Your task to perform on an android device: toggle airplane mode Image 0: 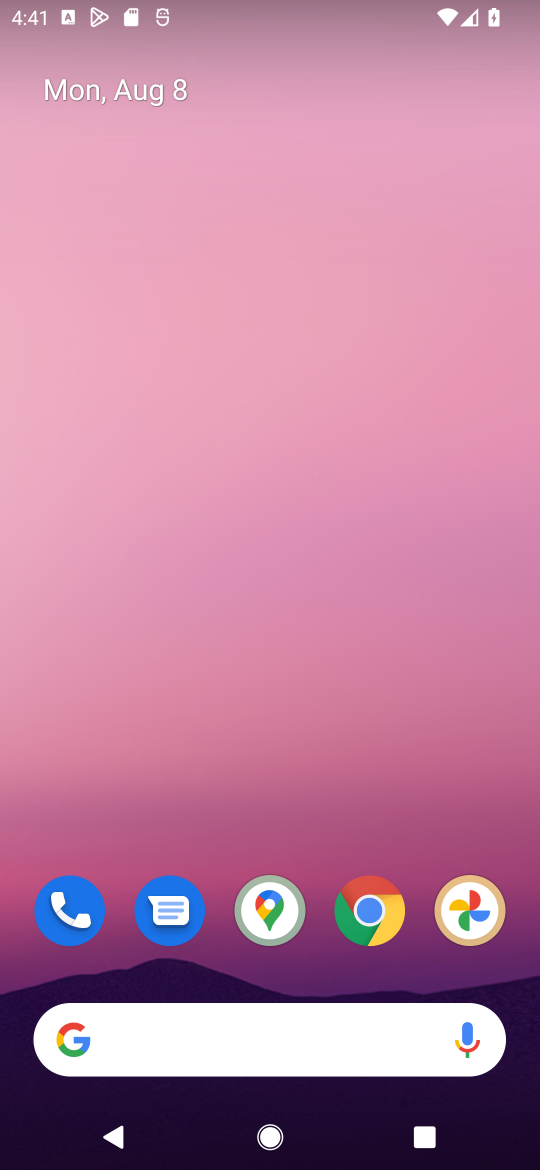
Step 0: drag from (330, 15) to (256, 899)
Your task to perform on an android device: toggle airplane mode Image 1: 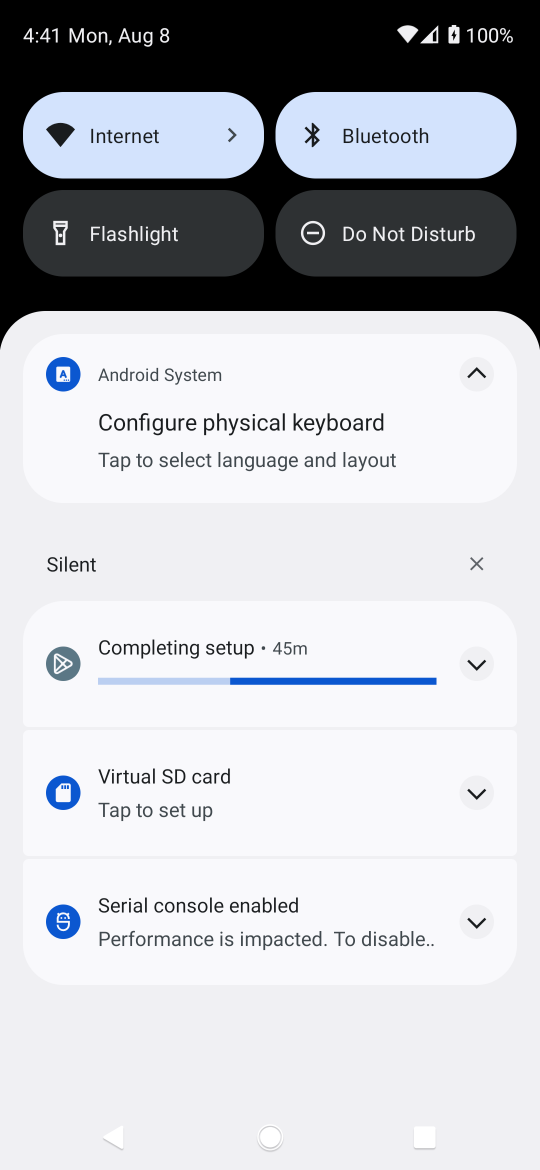
Step 1: drag from (263, 292) to (177, 1136)
Your task to perform on an android device: toggle airplane mode Image 2: 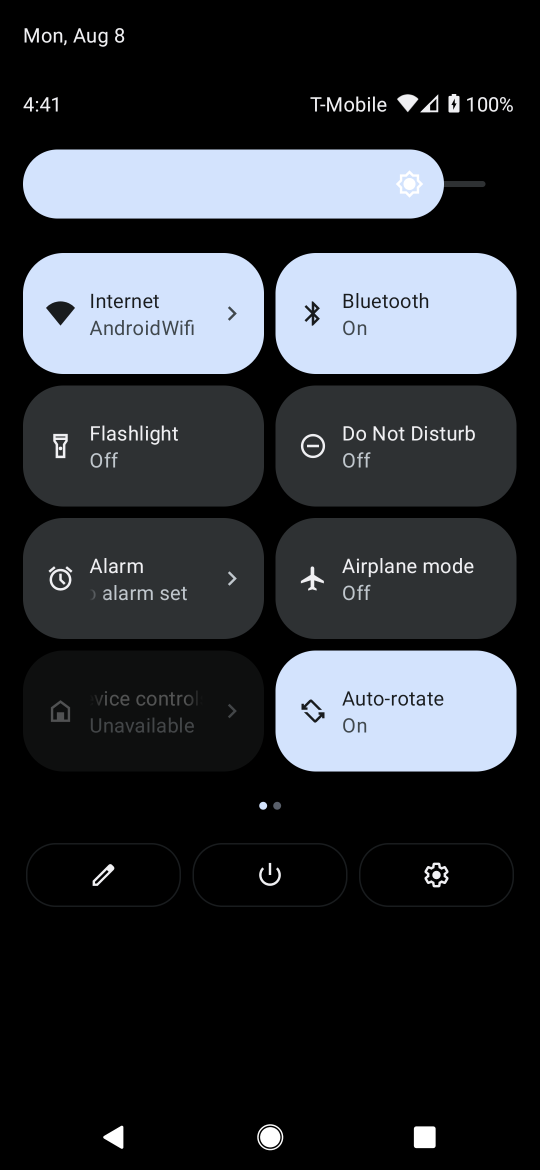
Step 2: click (336, 616)
Your task to perform on an android device: toggle airplane mode Image 3: 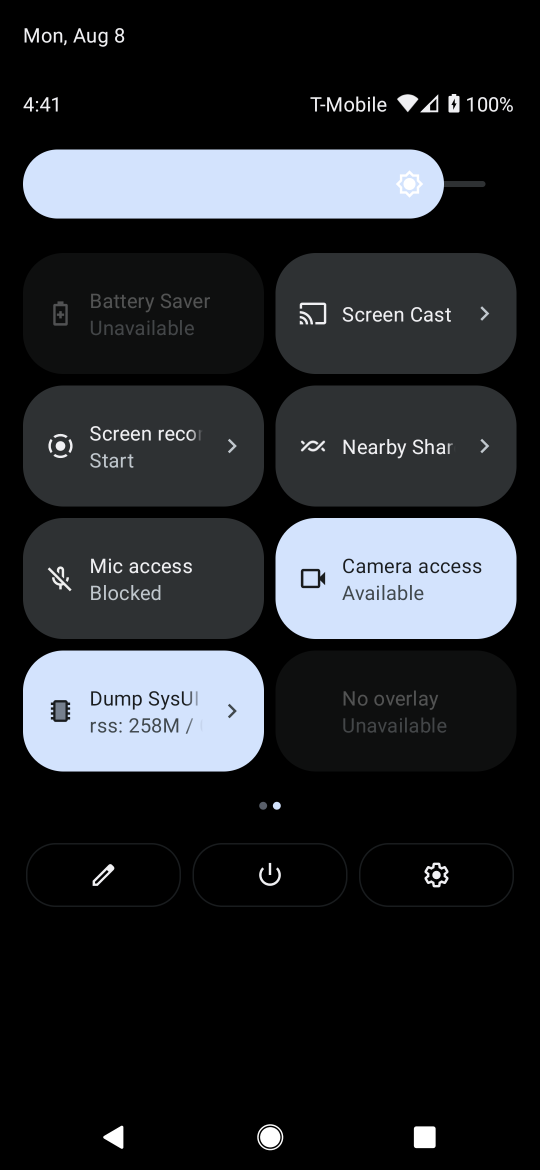
Step 3: click (274, 806)
Your task to perform on an android device: toggle airplane mode Image 4: 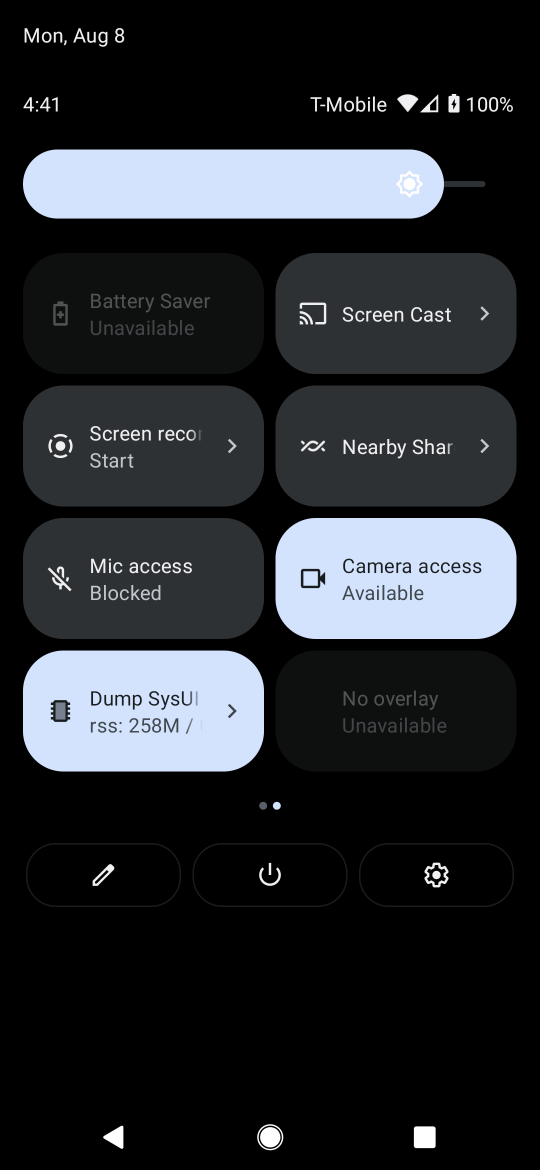
Step 4: click (264, 807)
Your task to perform on an android device: toggle airplane mode Image 5: 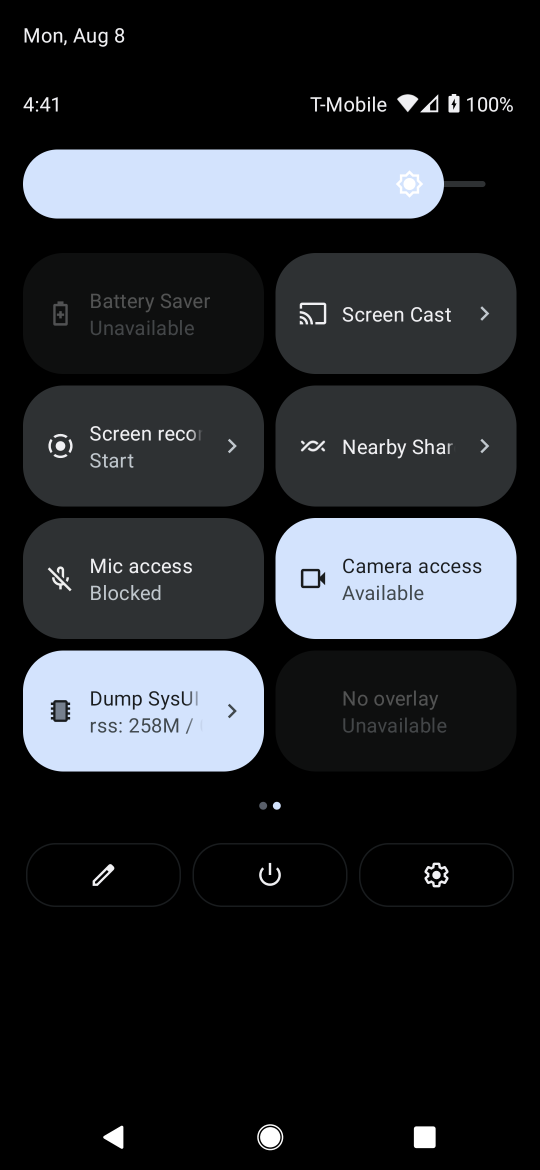
Step 5: drag from (41, 412) to (536, 327)
Your task to perform on an android device: toggle airplane mode Image 6: 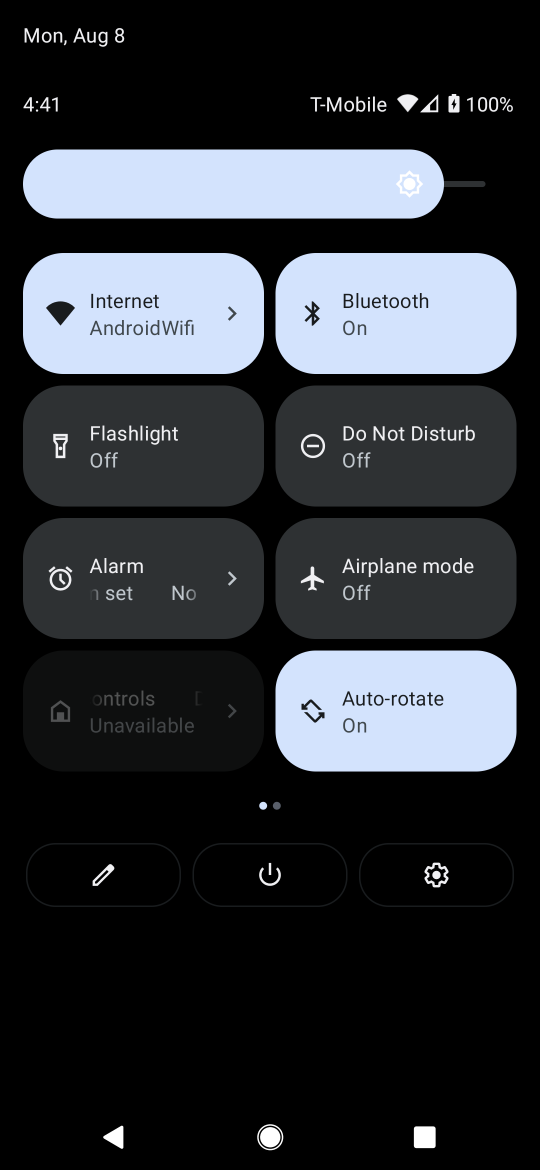
Step 6: click (355, 600)
Your task to perform on an android device: toggle airplane mode Image 7: 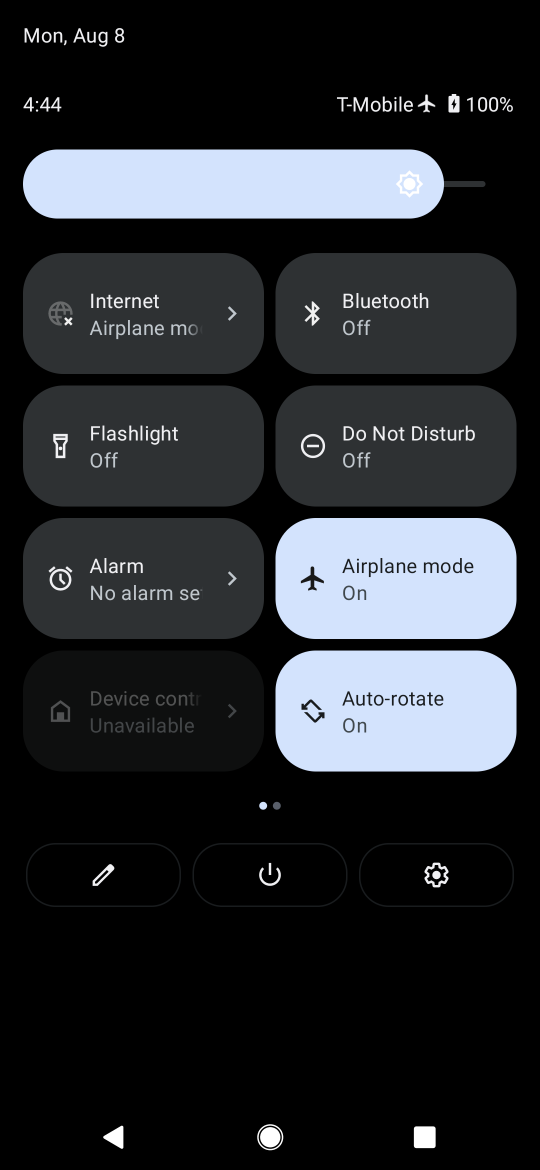
Step 7: task complete